Your task to perform on an android device: see creations saved in the google photos Image 0: 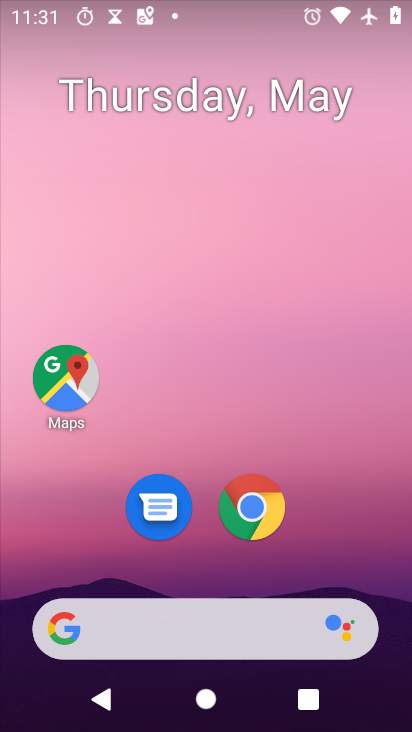
Step 0: drag from (320, 548) to (245, 54)
Your task to perform on an android device: see creations saved in the google photos Image 1: 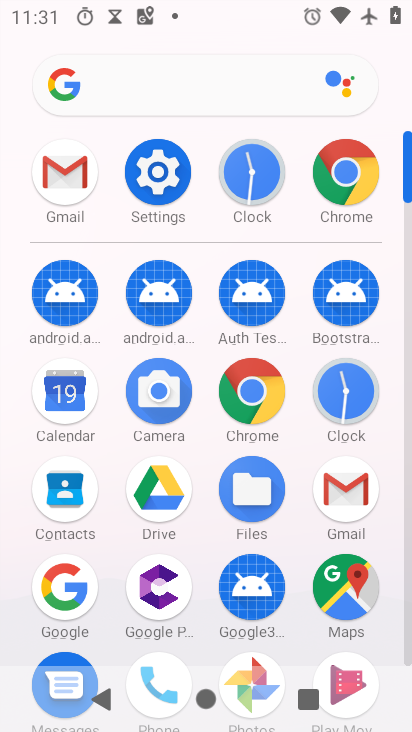
Step 1: drag from (0, 575) to (27, 201)
Your task to perform on an android device: see creations saved in the google photos Image 2: 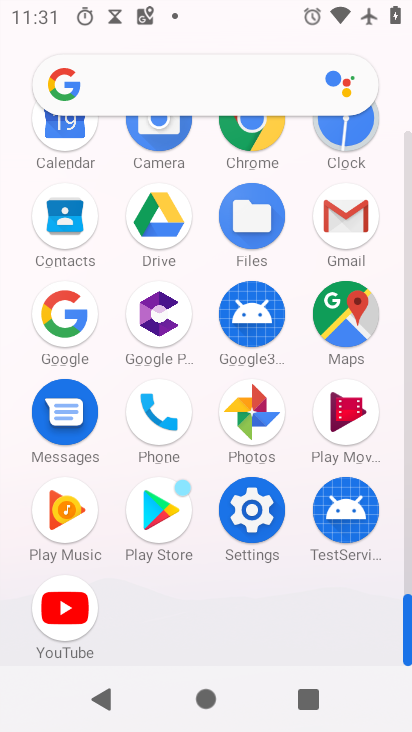
Step 2: click (249, 404)
Your task to perform on an android device: see creations saved in the google photos Image 3: 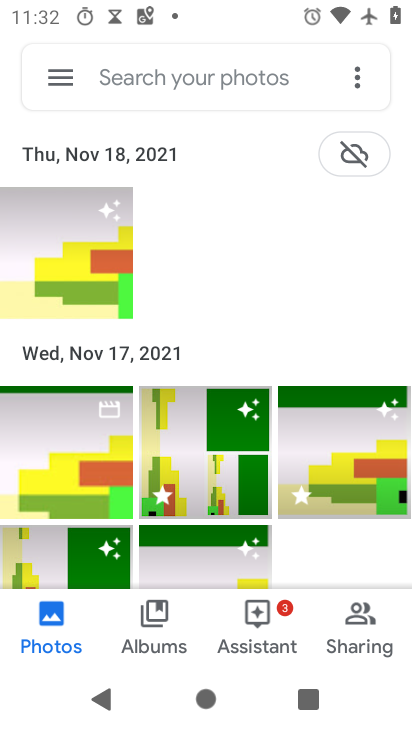
Step 3: drag from (54, 232) to (73, 138)
Your task to perform on an android device: see creations saved in the google photos Image 4: 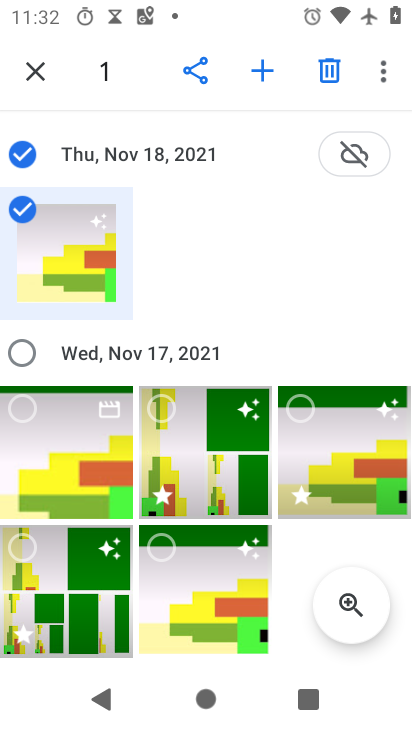
Step 4: click (15, 203)
Your task to perform on an android device: see creations saved in the google photos Image 5: 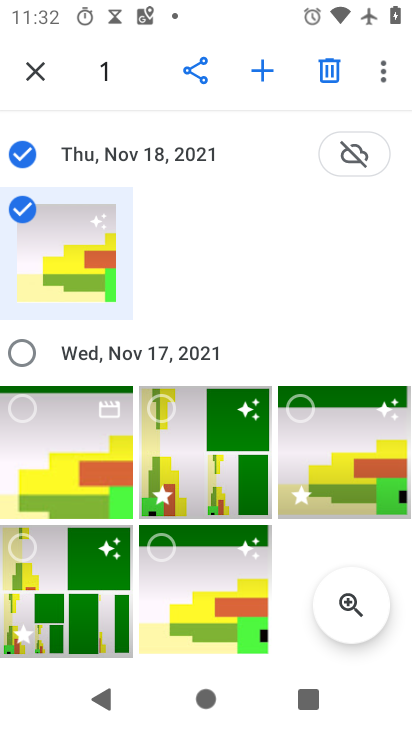
Step 5: click (10, 143)
Your task to perform on an android device: see creations saved in the google photos Image 6: 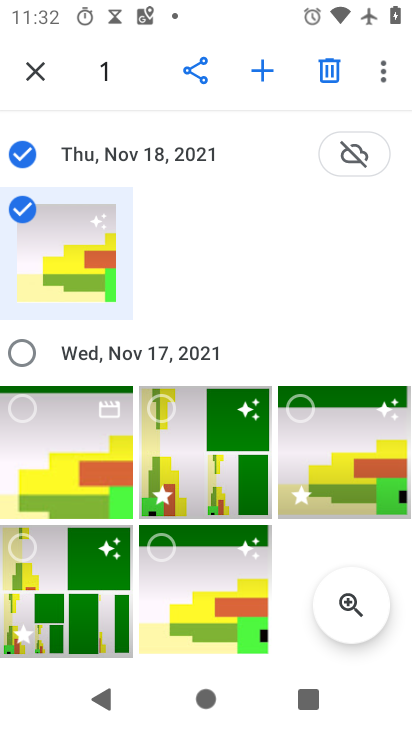
Step 6: click (28, 195)
Your task to perform on an android device: see creations saved in the google photos Image 7: 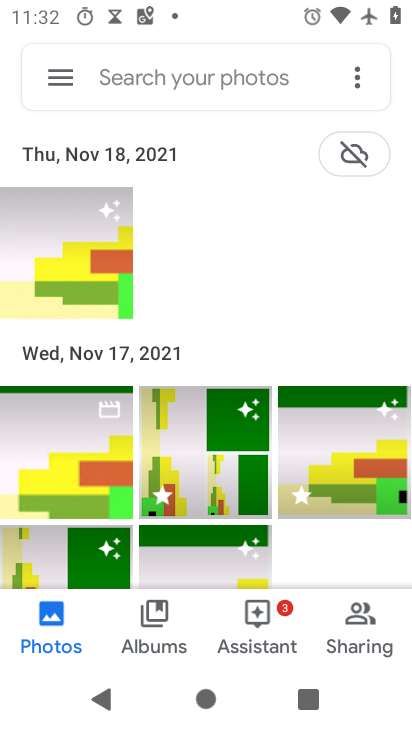
Step 7: task complete